Your task to perform on an android device: Open network settings Image 0: 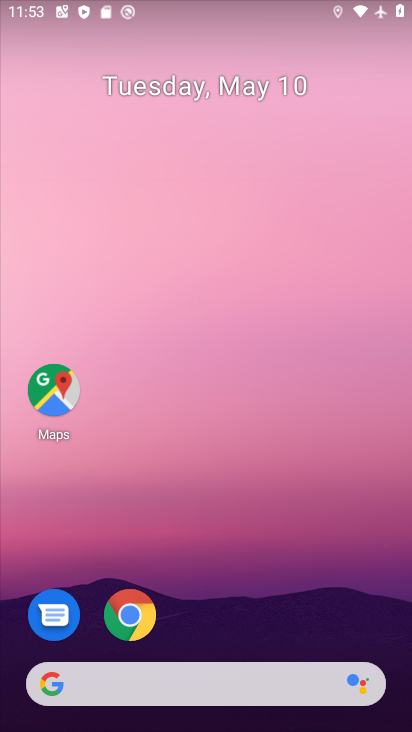
Step 0: drag from (261, 529) to (198, 17)
Your task to perform on an android device: Open network settings Image 1: 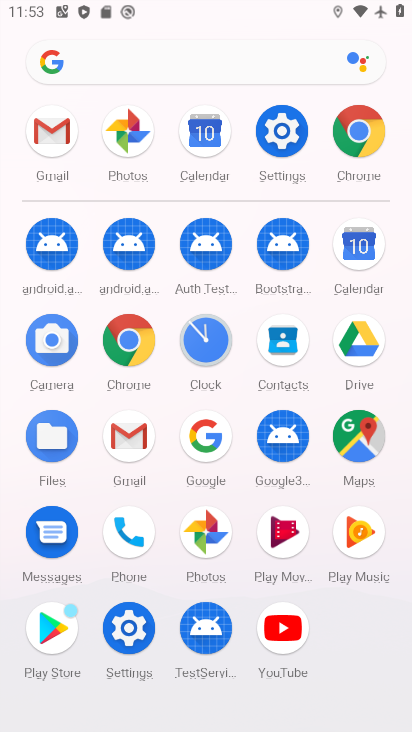
Step 1: drag from (7, 543) to (19, 168)
Your task to perform on an android device: Open network settings Image 2: 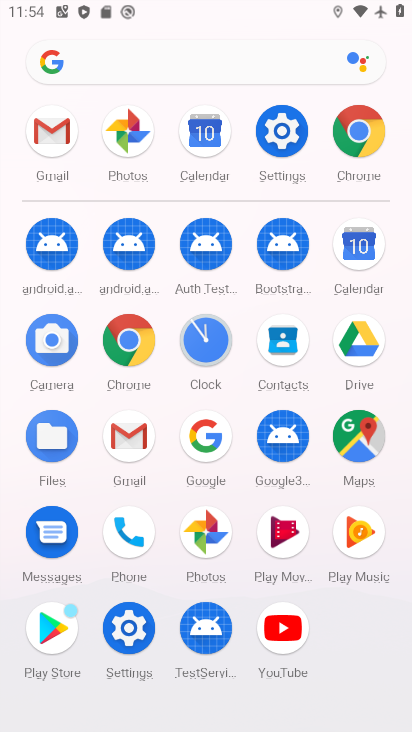
Step 2: click (129, 627)
Your task to perform on an android device: Open network settings Image 3: 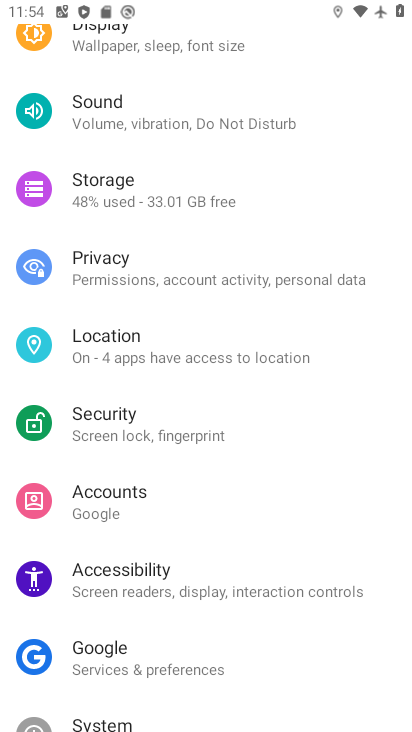
Step 3: drag from (219, 119) to (229, 564)
Your task to perform on an android device: Open network settings Image 4: 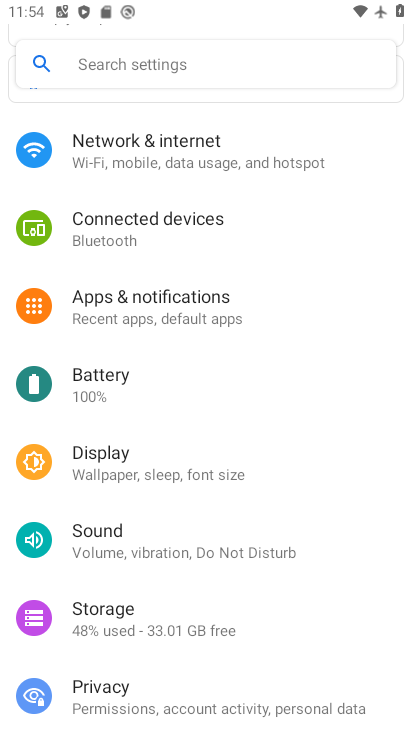
Step 4: click (165, 306)
Your task to perform on an android device: Open network settings Image 5: 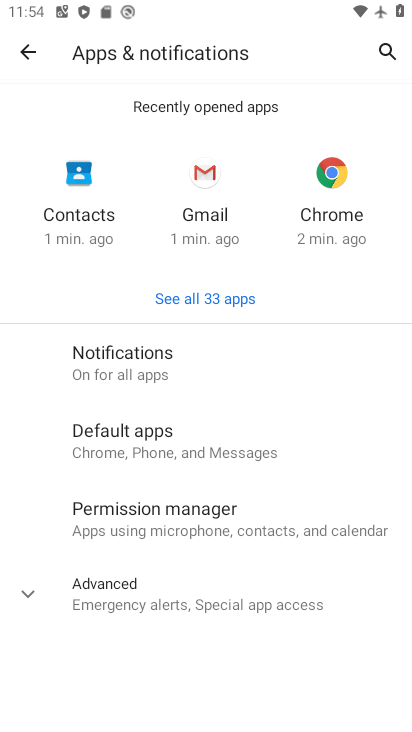
Step 5: click (34, 52)
Your task to perform on an android device: Open network settings Image 6: 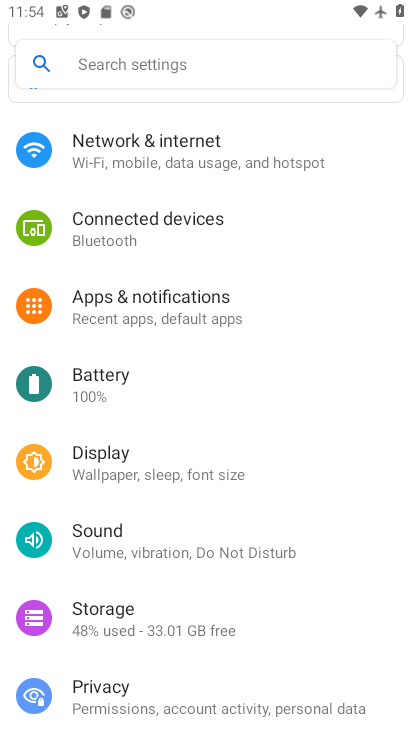
Step 6: click (131, 146)
Your task to perform on an android device: Open network settings Image 7: 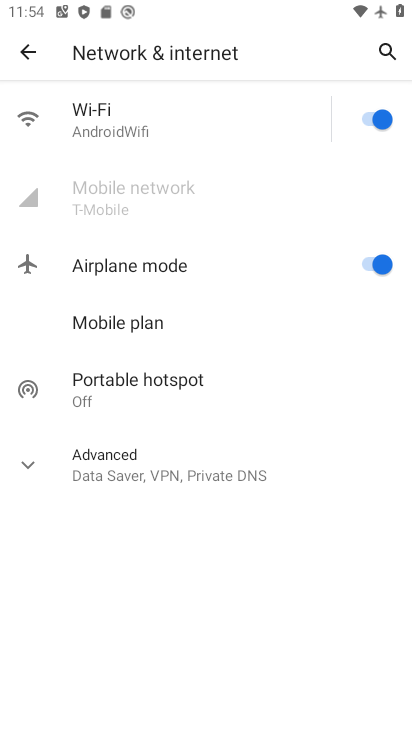
Step 7: click (37, 455)
Your task to perform on an android device: Open network settings Image 8: 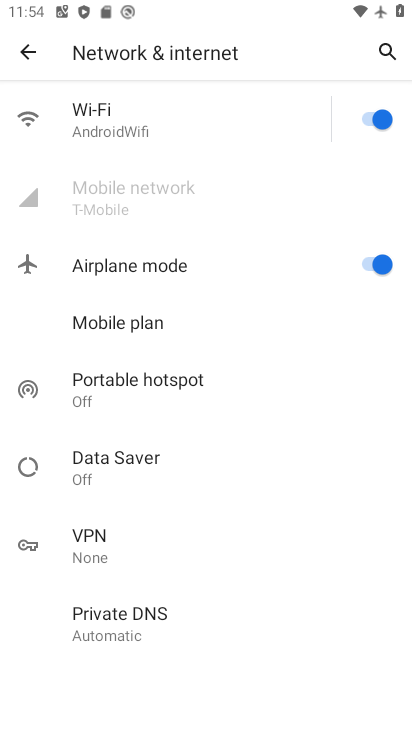
Step 8: task complete